Your task to perform on an android device: Open privacy settings Image 0: 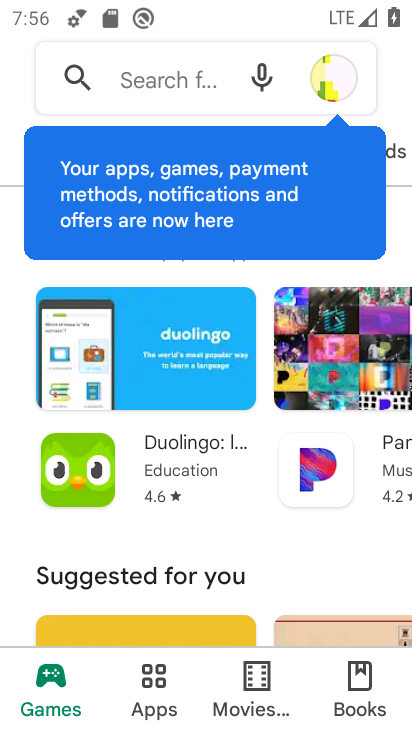
Step 0: press home button
Your task to perform on an android device: Open privacy settings Image 1: 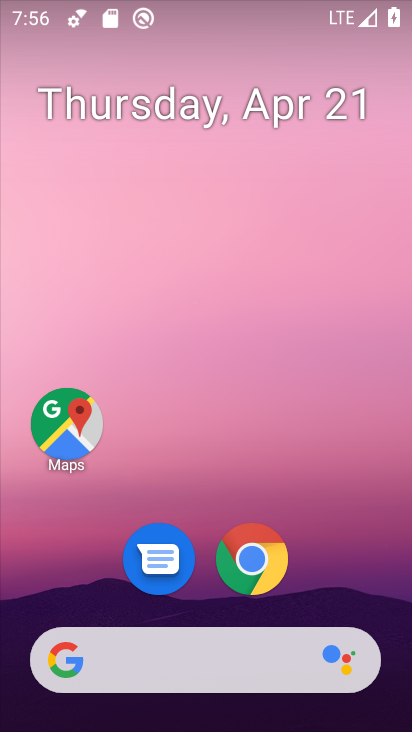
Step 1: drag from (331, 574) to (309, 177)
Your task to perform on an android device: Open privacy settings Image 2: 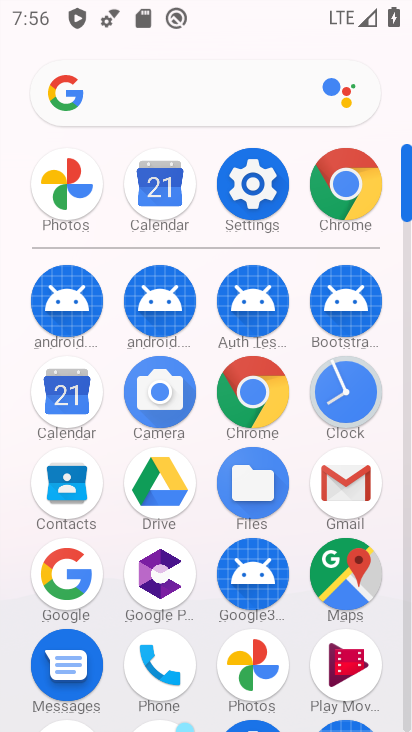
Step 2: click (268, 197)
Your task to perform on an android device: Open privacy settings Image 3: 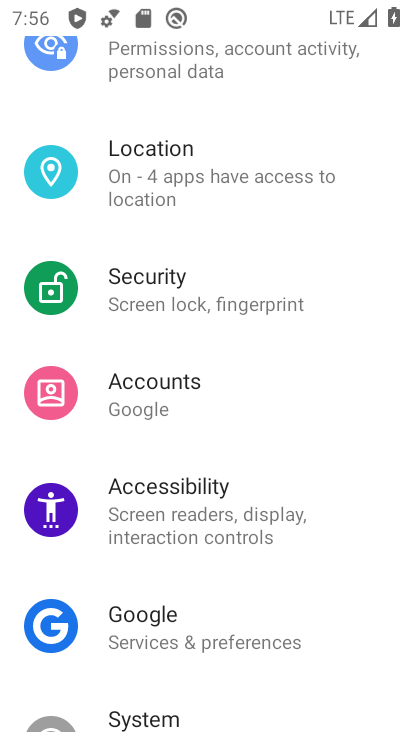
Step 3: drag from (256, 334) to (229, 565)
Your task to perform on an android device: Open privacy settings Image 4: 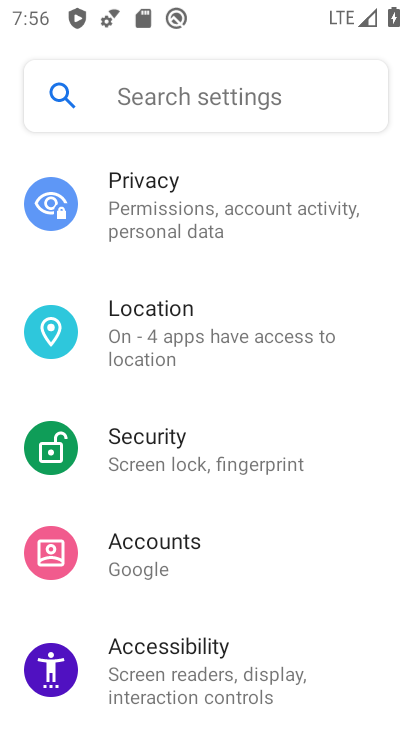
Step 4: click (218, 207)
Your task to perform on an android device: Open privacy settings Image 5: 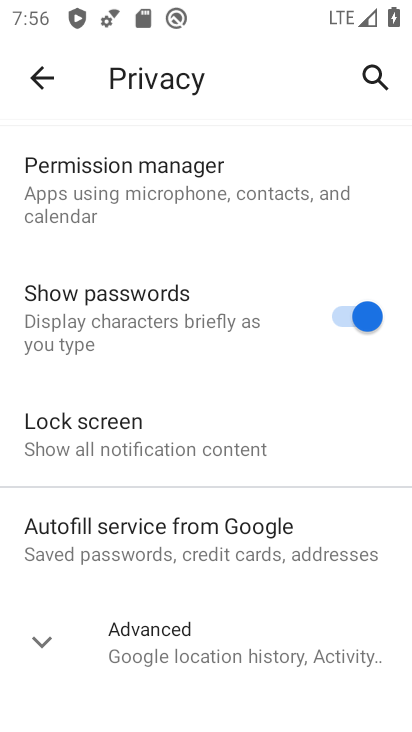
Step 5: task complete